Your task to perform on an android device: check google app version Image 0: 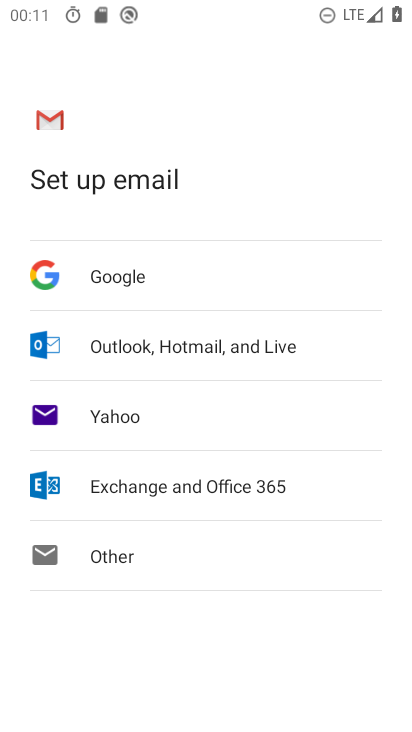
Step 0: press home button
Your task to perform on an android device: check google app version Image 1: 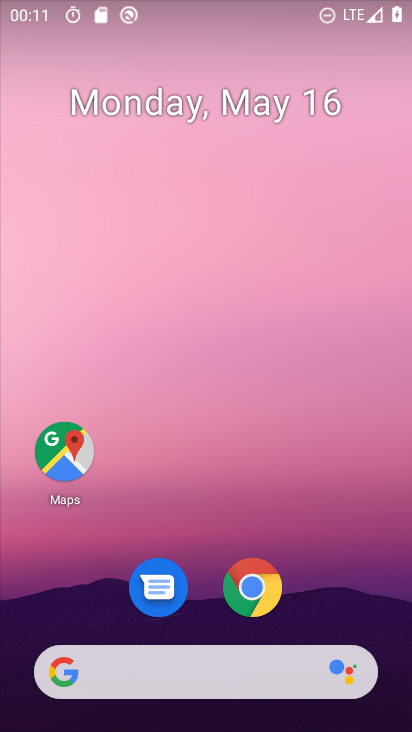
Step 1: drag from (204, 607) to (204, 285)
Your task to perform on an android device: check google app version Image 2: 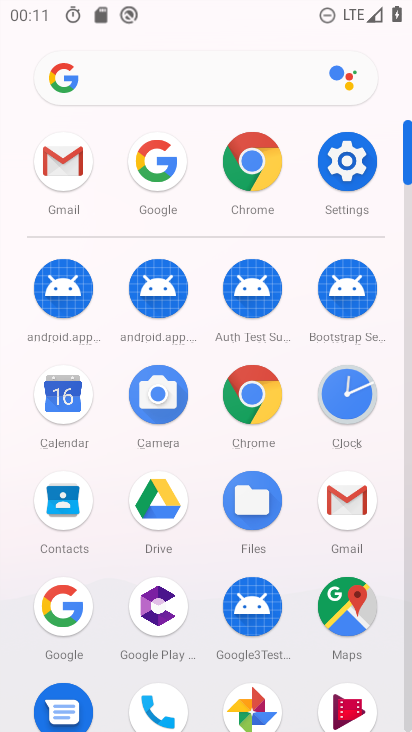
Step 2: click (171, 169)
Your task to perform on an android device: check google app version Image 3: 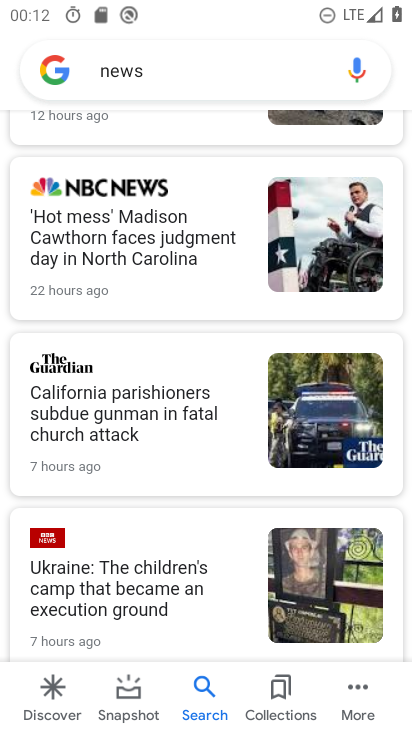
Step 3: drag from (270, 200) to (270, 471)
Your task to perform on an android device: check google app version Image 4: 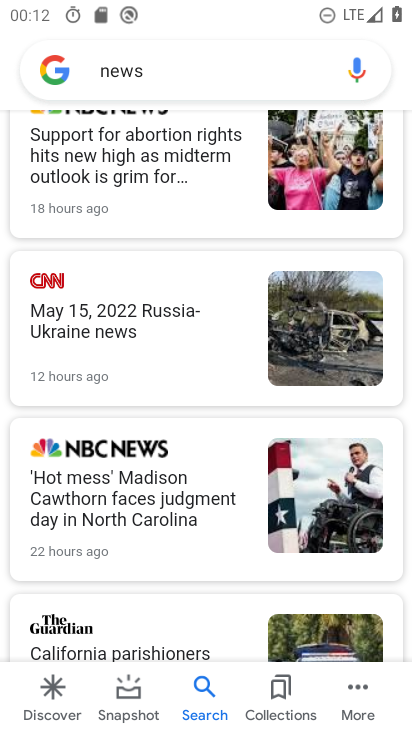
Step 4: drag from (225, 222) to (264, 573)
Your task to perform on an android device: check google app version Image 5: 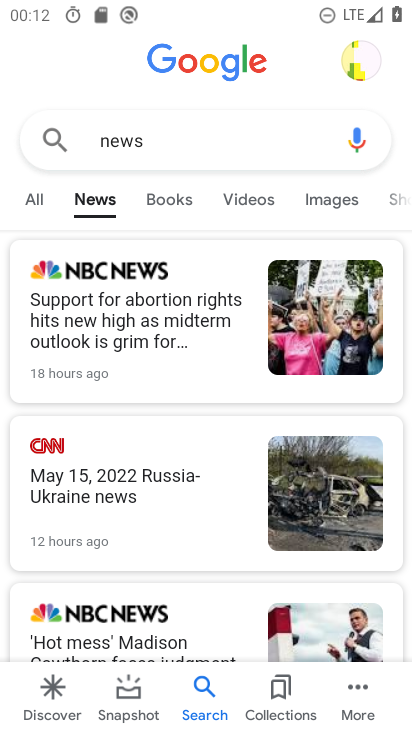
Step 5: click (362, 694)
Your task to perform on an android device: check google app version Image 6: 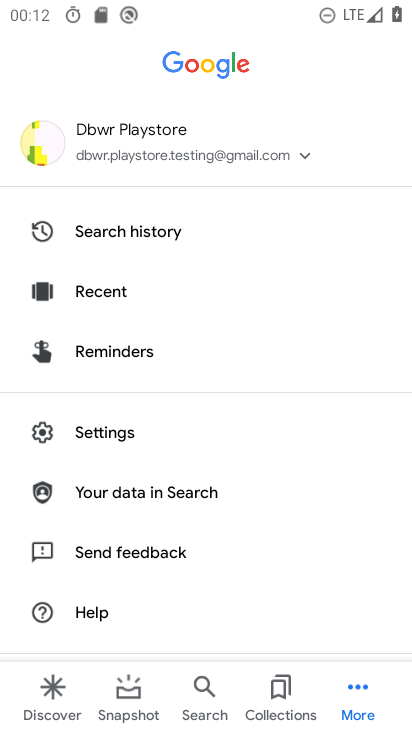
Step 6: drag from (183, 620) to (185, 318)
Your task to perform on an android device: check google app version Image 7: 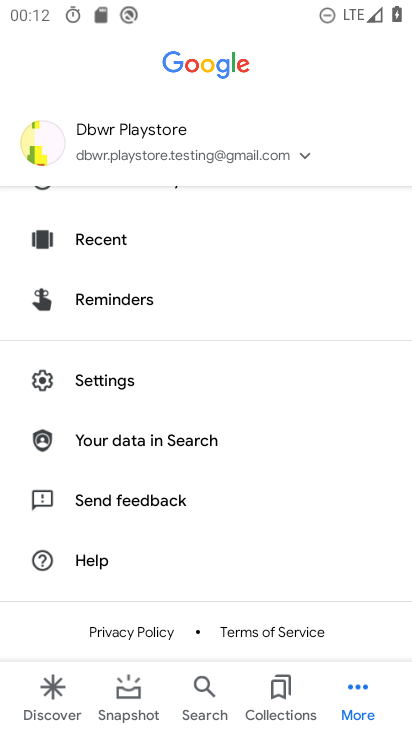
Step 7: click (125, 392)
Your task to perform on an android device: check google app version Image 8: 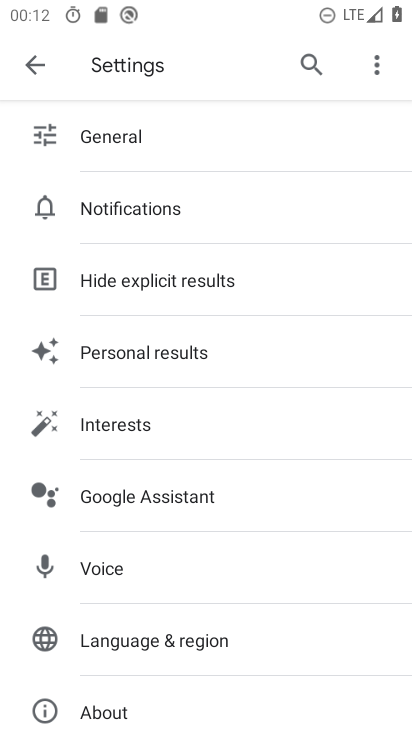
Step 8: drag from (202, 612) to (234, 344)
Your task to perform on an android device: check google app version Image 9: 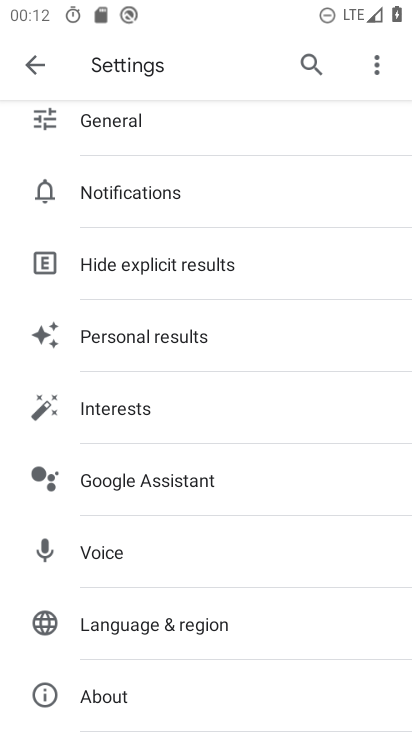
Step 9: drag from (173, 634) to (200, 456)
Your task to perform on an android device: check google app version Image 10: 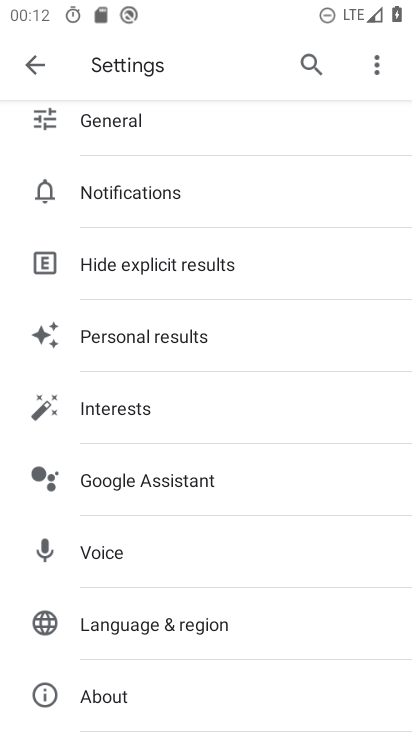
Step 10: click (136, 700)
Your task to perform on an android device: check google app version Image 11: 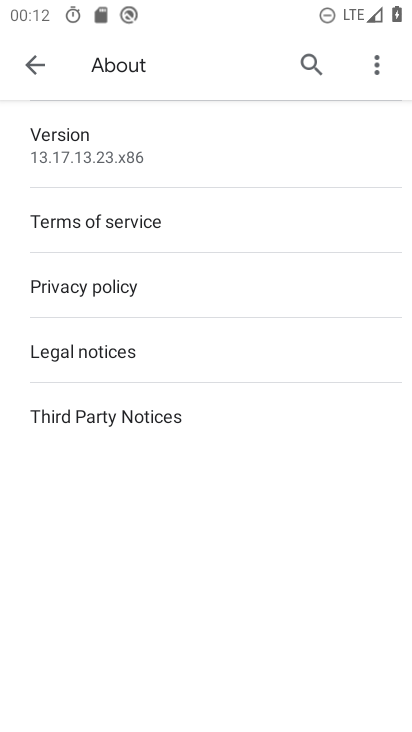
Step 11: click (117, 146)
Your task to perform on an android device: check google app version Image 12: 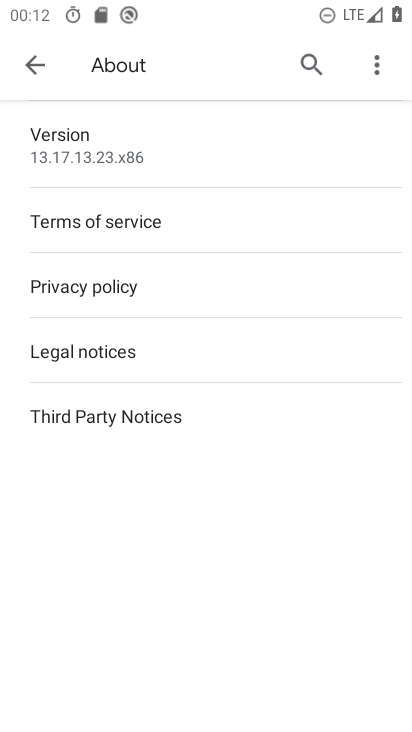
Step 12: task complete